Your task to perform on an android device: check google app version Image 0: 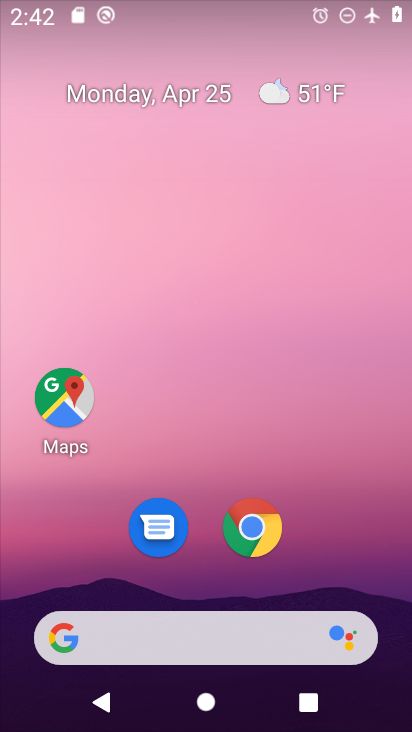
Step 0: drag from (328, 496) to (267, 73)
Your task to perform on an android device: check google app version Image 1: 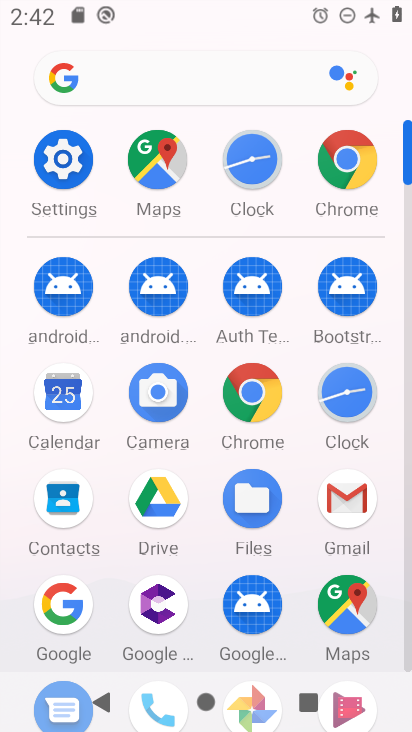
Step 1: drag from (4, 541) to (10, 209)
Your task to perform on an android device: check google app version Image 2: 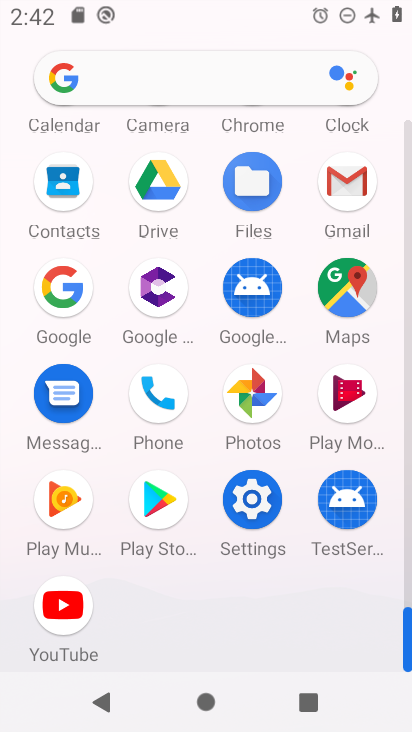
Step 2: click (69, 286)
Your task to perform on an android device: check google app version Image 3: 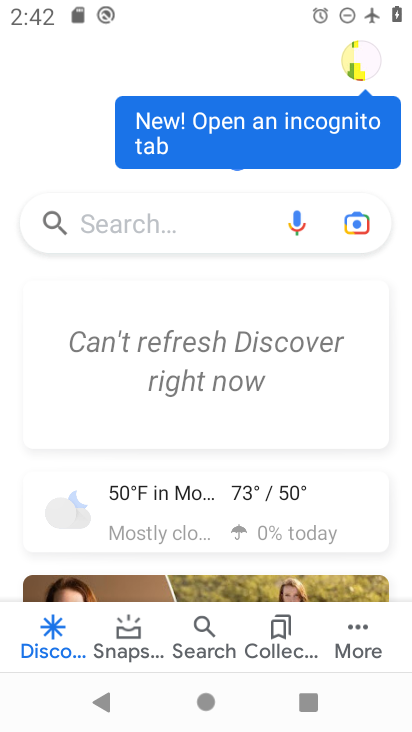
Step 3: click (349, 621)
Your task to perform on an android device: check google app version Image 4: 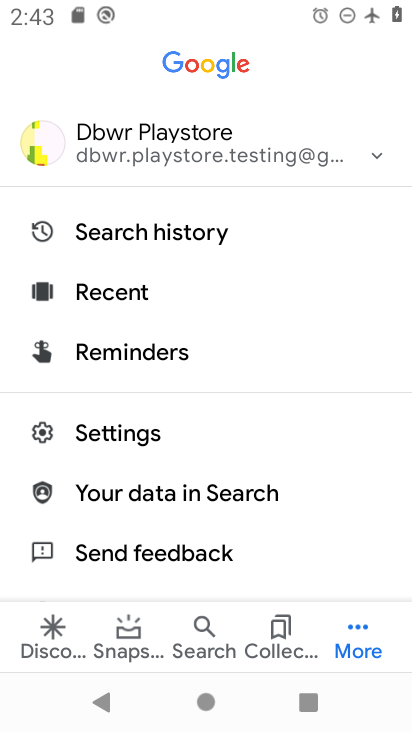
Step 4: click (134, 425)
Your task to perform on an android device: check google app version Image 5: 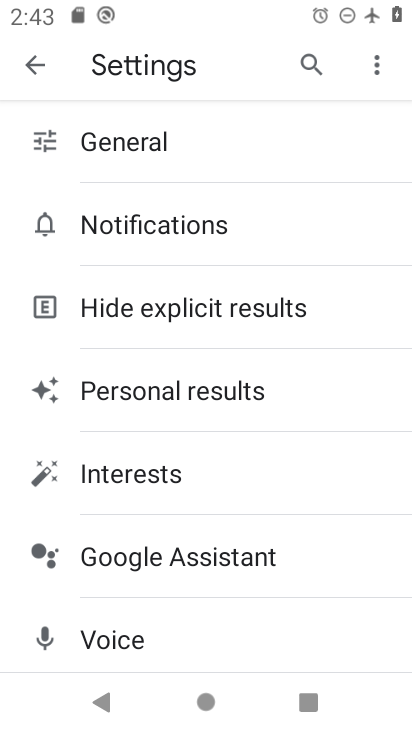
Step 5: drag from (288, 572) to (308, 151)
Your task to perform on an android device: check google app version Image 6: 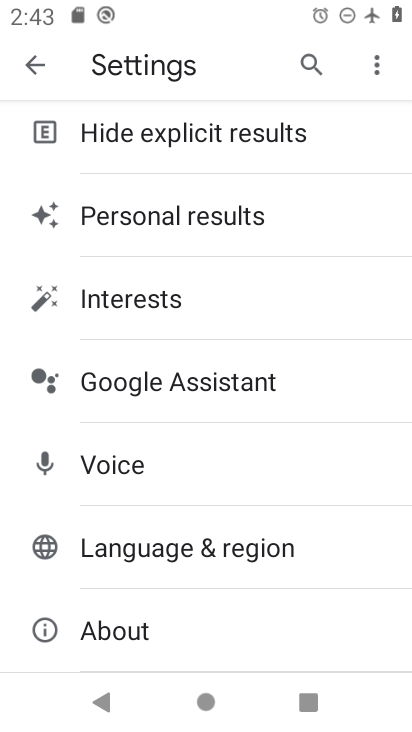
Step 6: click (107, 631)
Your task to perform on an android device: check google app version Image 7: 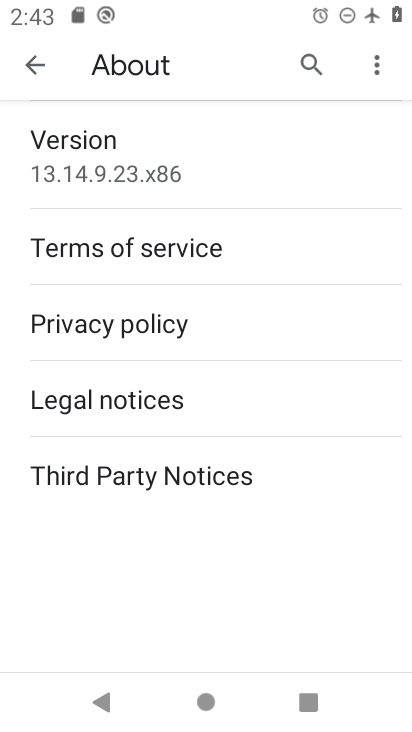
Step 7: task complete